Your task to perform on an android device: toggle location history Image 0: 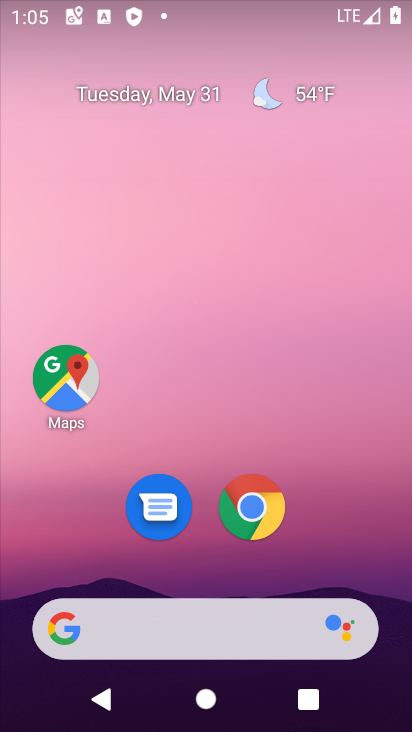
Step 0: drag from (406, 611) to (323, 28)
Your task to perform on an android device: toggle location history Image 1: 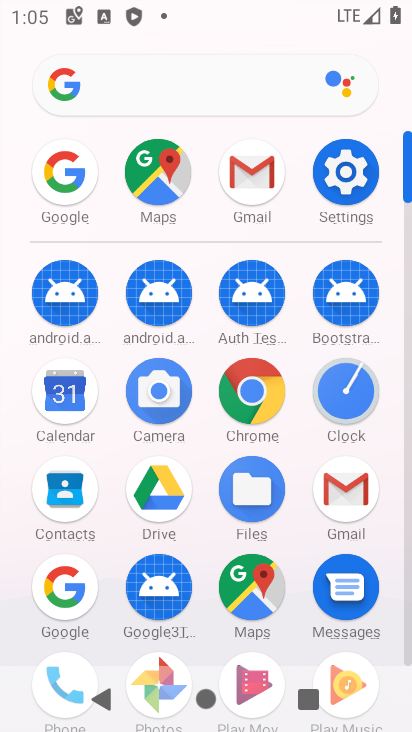
Step 1: click (335, 181)
Your task to perform on an android device: toggle location history Image 2: 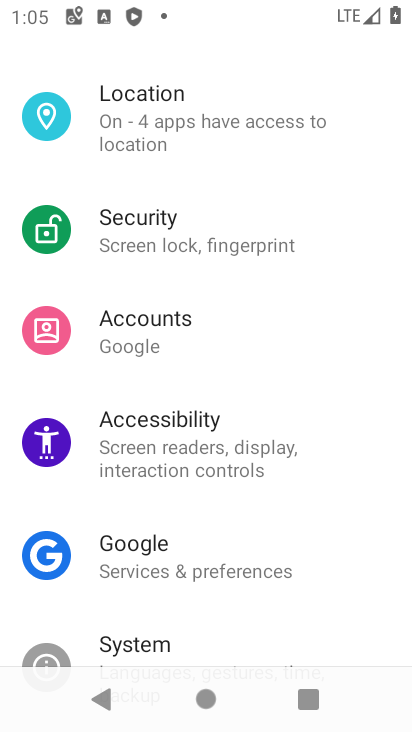
Step 2: click (172, 149)
Your task to perform on an android device: toggle location history Image 3: 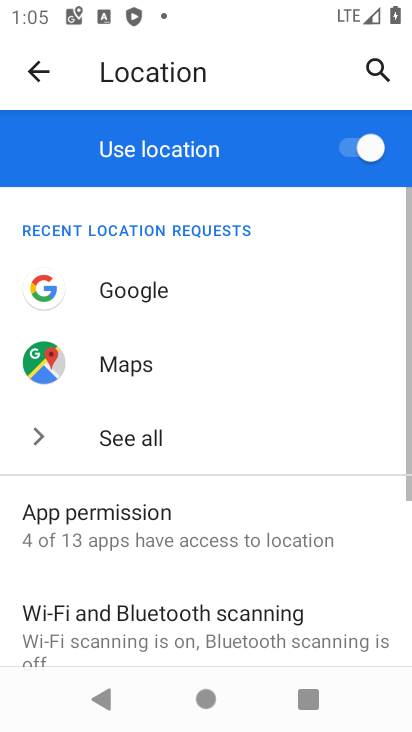
Step 3: drag from (142, 617) to (209, 236)
Your task to perform on an android device: toggle location history Image 4: 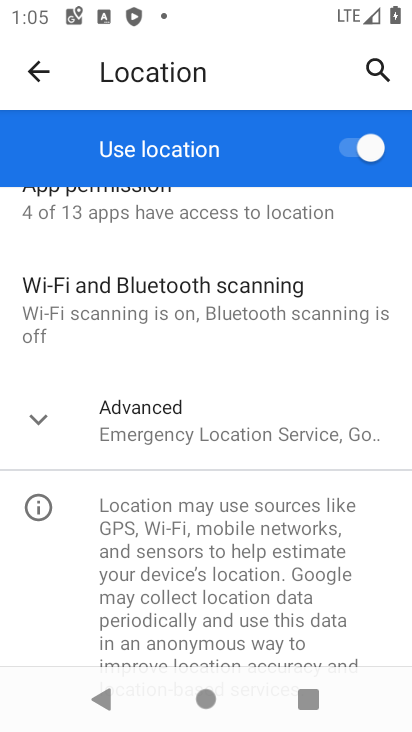
Step 4: click (163, 425)
Your task to perform on an android device: toggle location history Image 5: 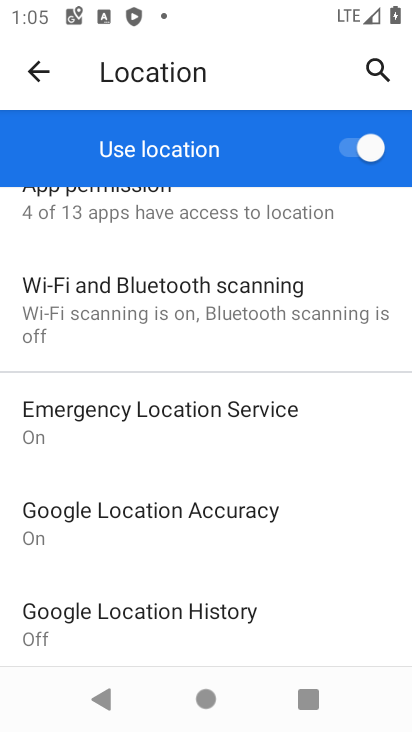
Step 5: click (142, 621)
Your task to perform on an android device: toggle location history Image 6: 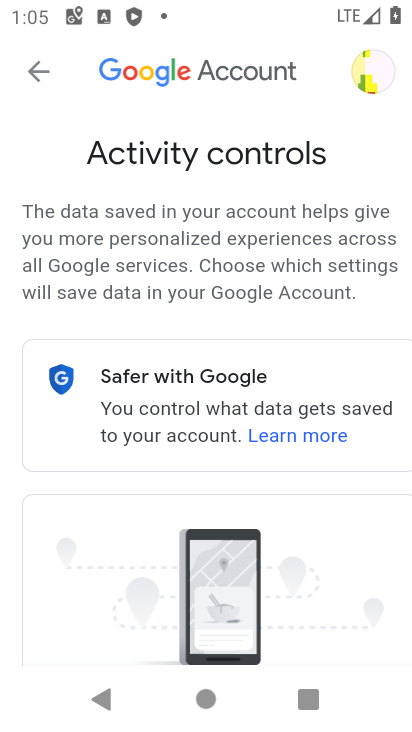
Step 6: drag from (259, 591) to (177, 96)
Your task to perform on an android device: toggle location history Image 7: 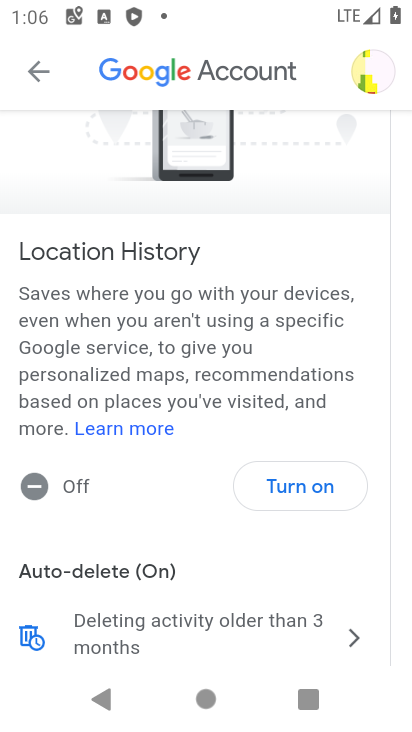
Step 7: click (324, 500)
Your task to perform on an android device: toggle location history Image 8: 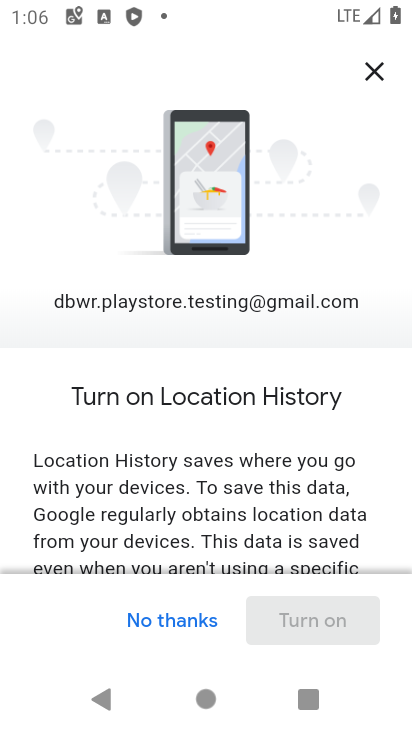
Step 8: task complete